Your task to perform on an android device: Open Yahoo.com Image 0: 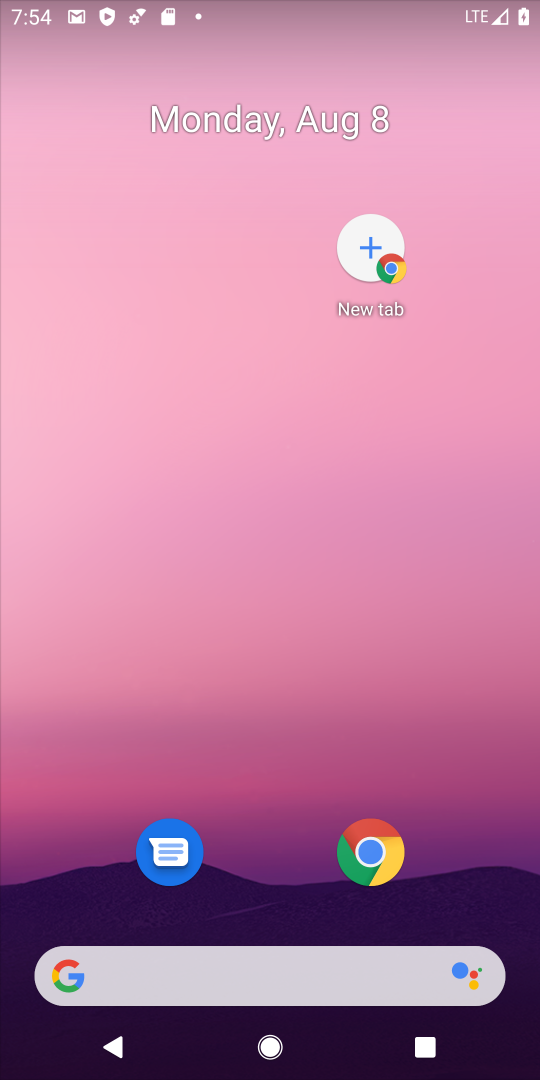
Step 0: drag from (311, 516) to (324, 384)
Your task to perform on an android device: Open Yahoo.com Image 1: 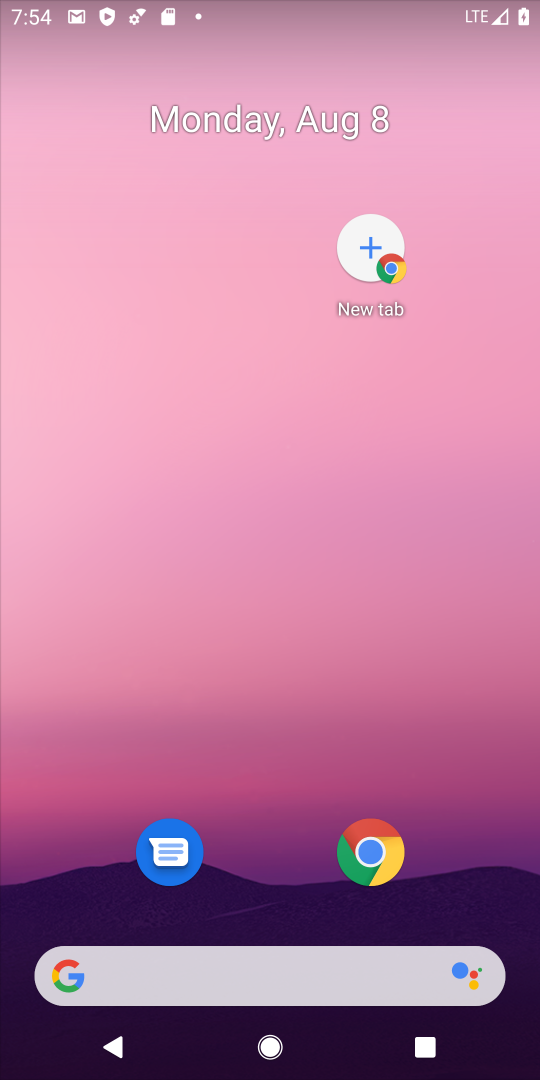
Step 1: drag from (180, 899) to (292, 27)
Your task to perform on an android device: Open Yahoo.com Image 2: 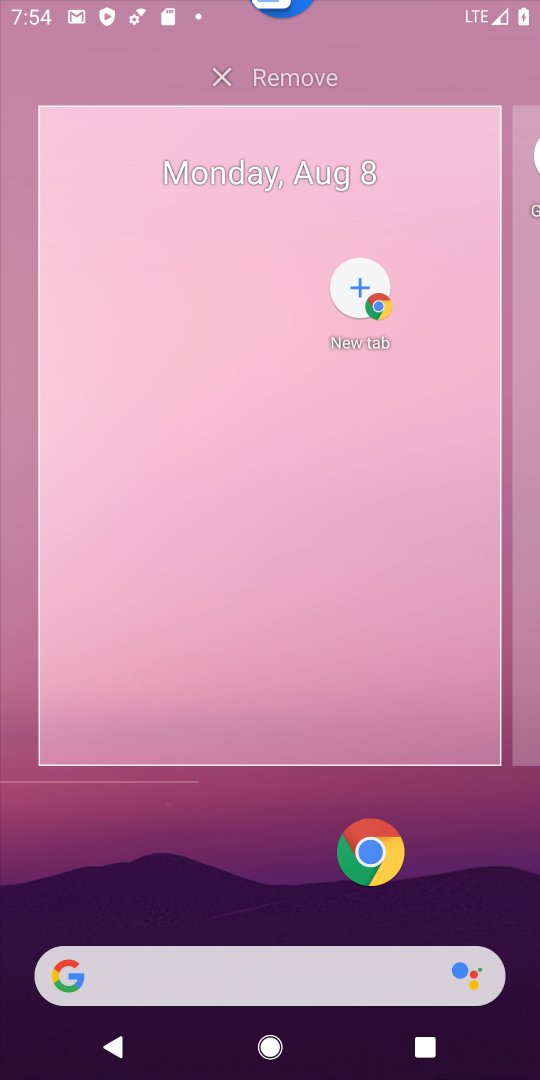
Step 2: drag from (196, 867) to (305, 54)
Your task to perform on an android device: Open Yahoo.com Image 3: 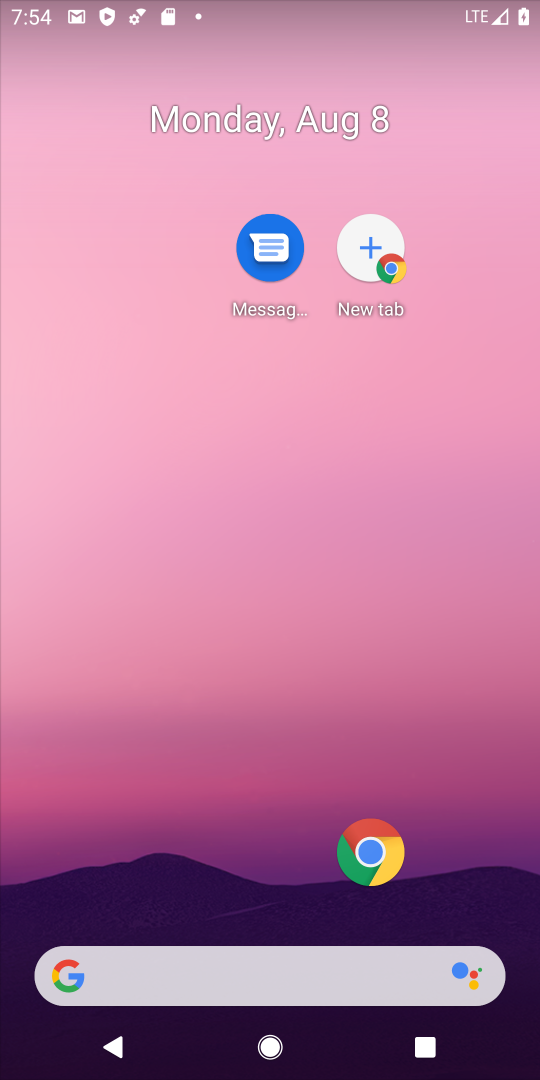
Step 3: drag from (272, 911) to (294, 23)
Your task to perform on an android device: Open Yahoo.com Image 4: 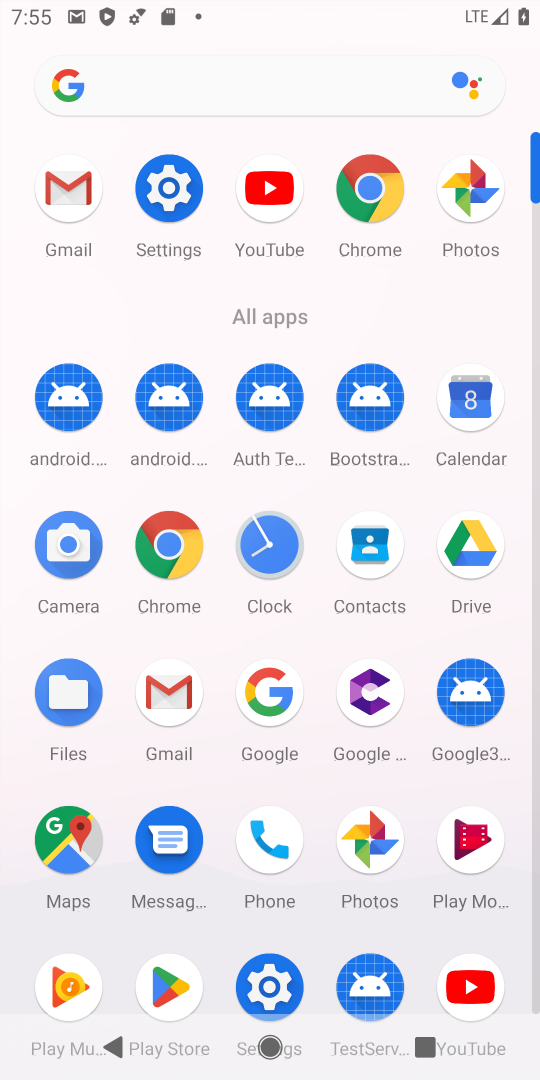
Step 4: click (273, 703)
Your task to perform on an android device: Open Yahoo.com Image 5: 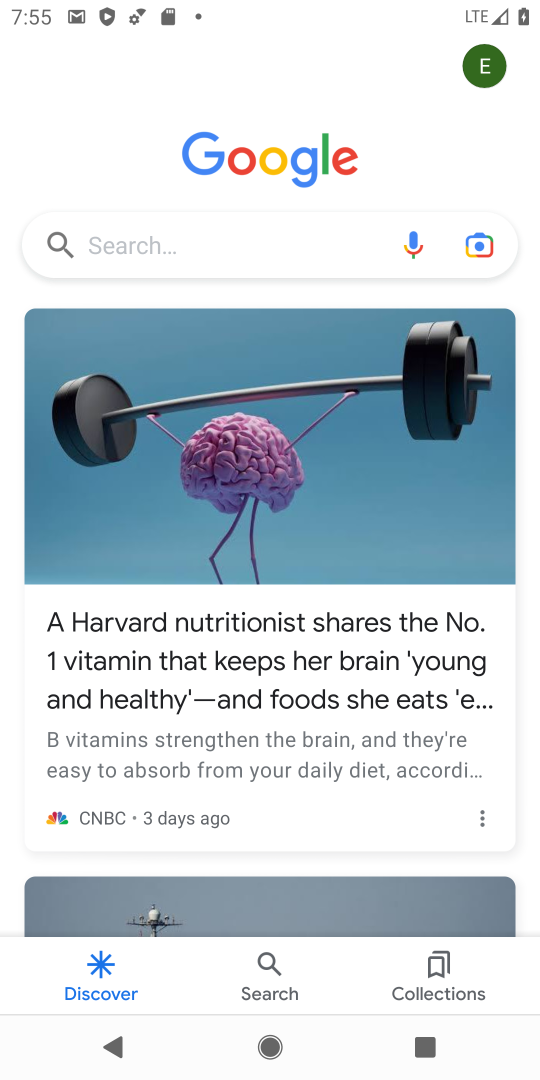
Step 5: click (241, 233)
Your task to perform on an android device: Open Yahoo.com Image 6: 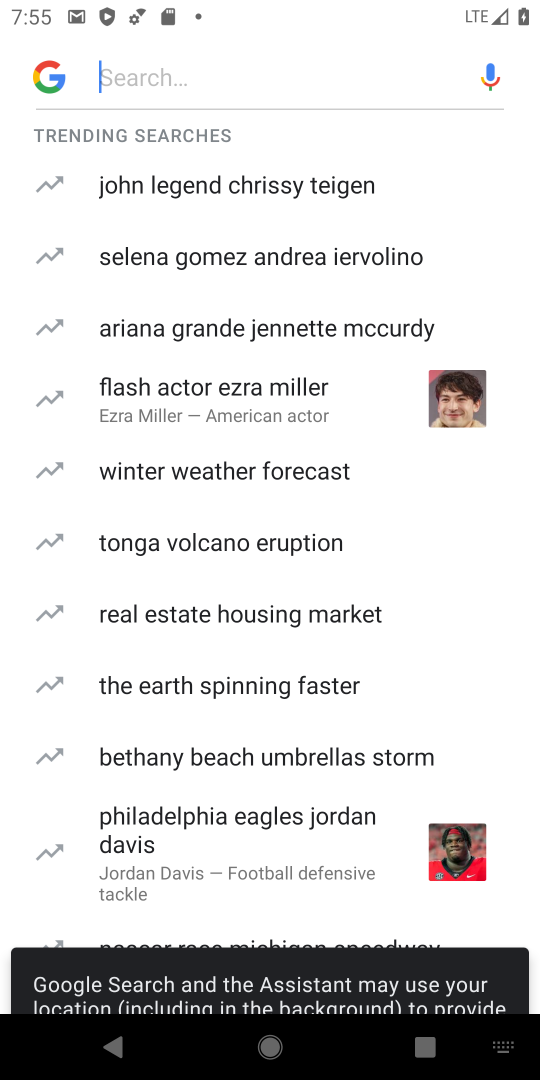
Step 6: drag from (205, 260) to (222, 657)
Your task to perform on an android device: Open Yahoo.com Image 7: 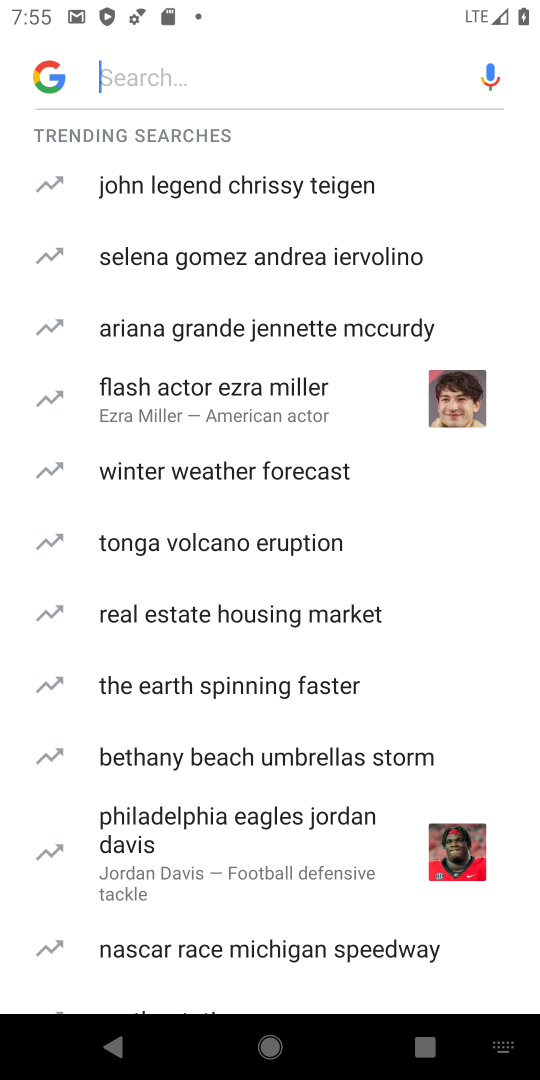
Step 7: type "Yahoo.com"
Your task to perform on an android device: Open Yahoo.com Image 8: 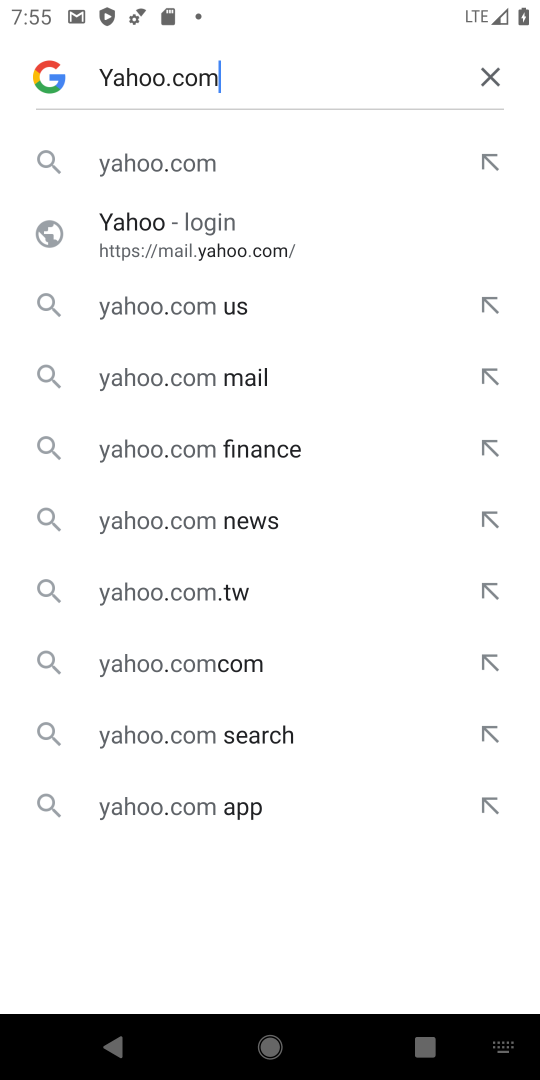
Step 8: click (136, 158)
Your task to perform on an android device: Open Yahoo.com Image 9: 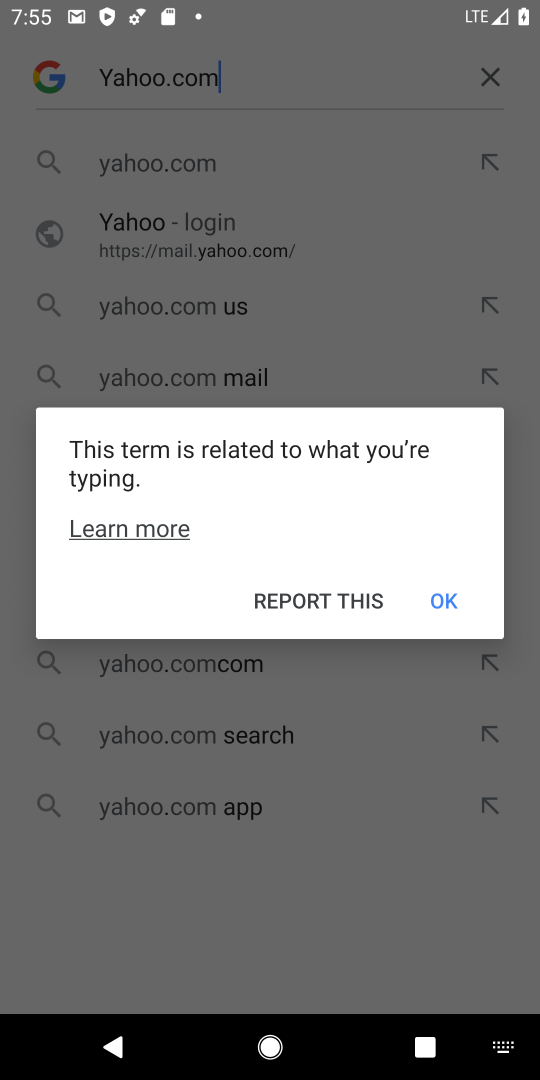
Step 9: click (430, 603)
Your task to perform on an android device: Open Yahoo.com Image 10: 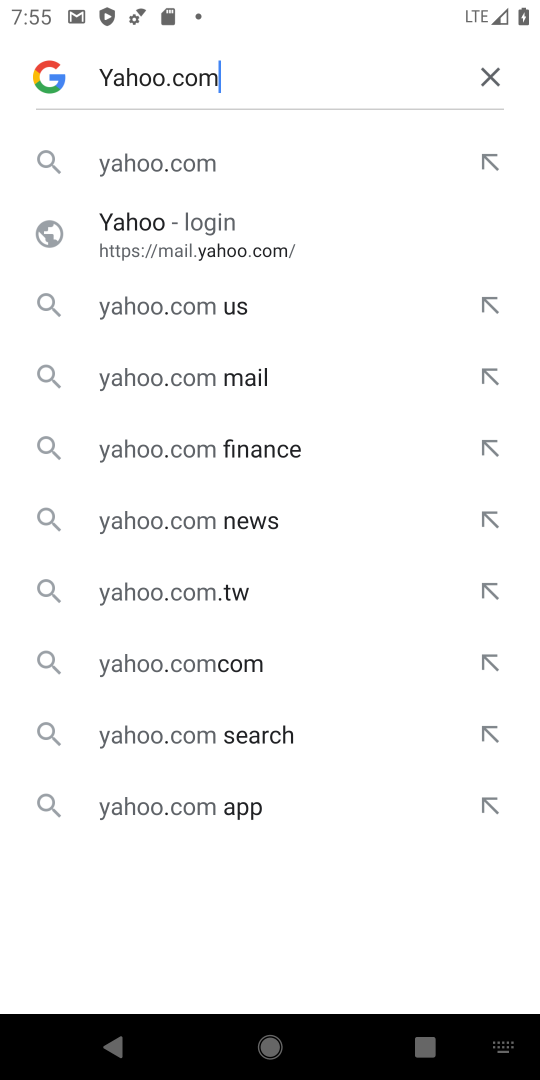
Step 10: click (145, 167)
Your task to perform on an android device: Open Yahoo.com Image 11: 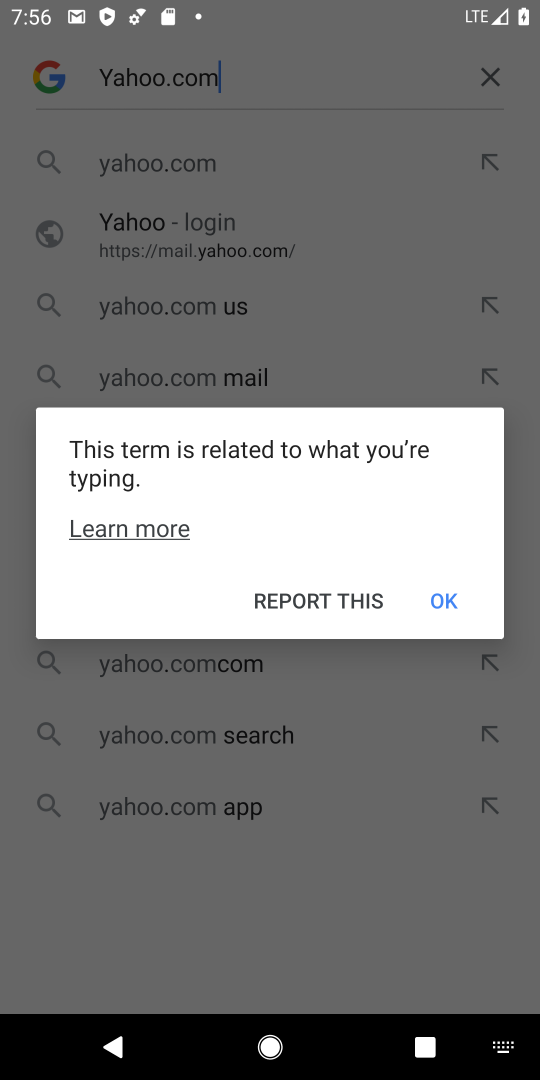
Step 11: task complete